Your task to perform on an android device: Show me the alarms in the clock app Image 0: 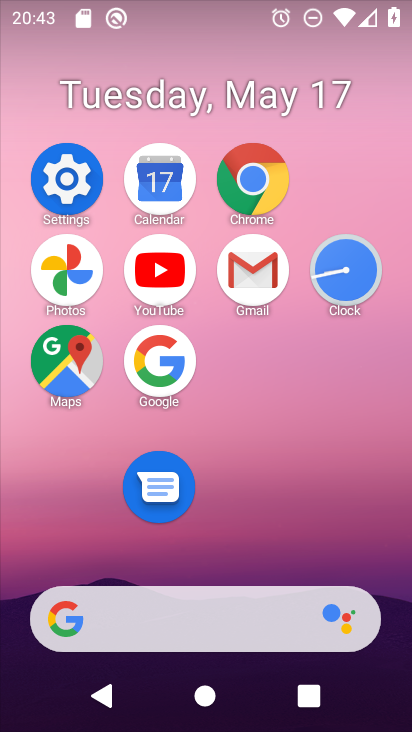
Step 0: click (341, 279)
Your task to perform on an android device: Show me the alarms in the clock app Image 1: 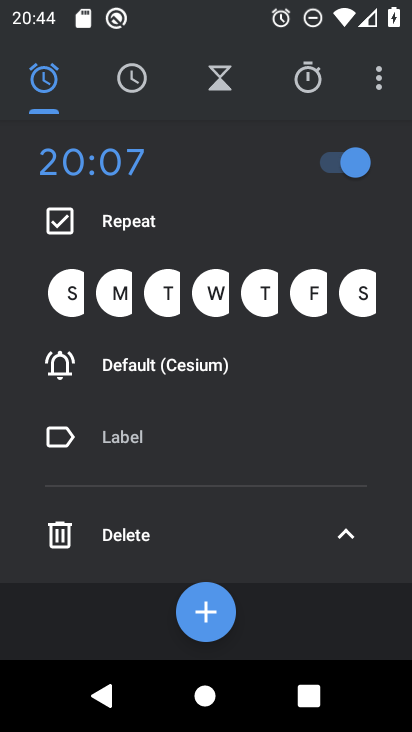
Step 1: task complete